Your task to perform on an android device: Open Google Maps Image 0: 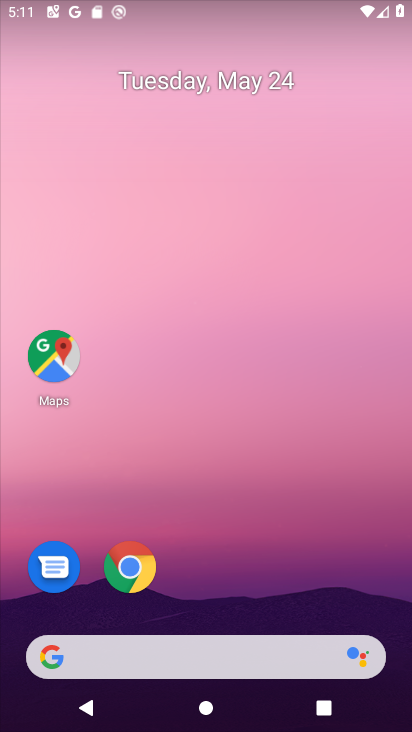
Step 0: click (52, 358)
Your task to perform on an android device: Open Google Maps Image 1: 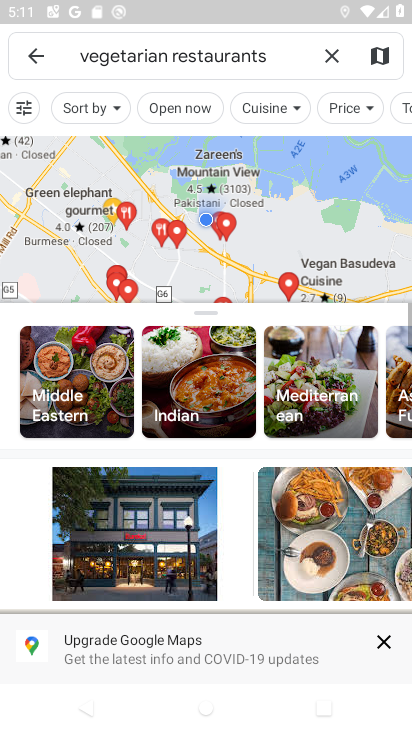
Step 1: click (332, 54)
Your task to perform on an android device: Open Google Maps Image 2: 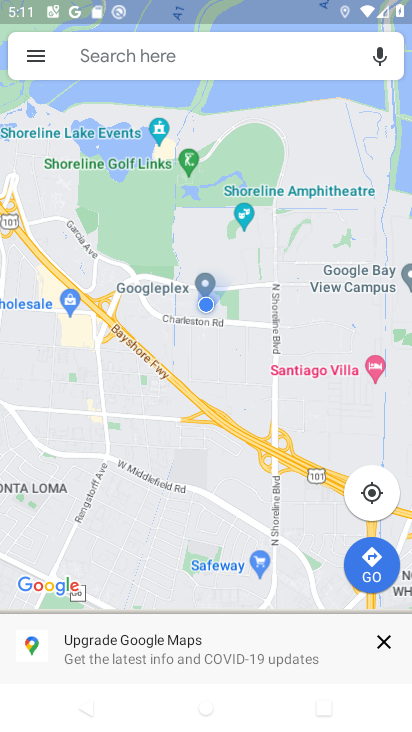
Step 2: task complete